Your task to perform on an android device: toggle sleep mode Image 0: 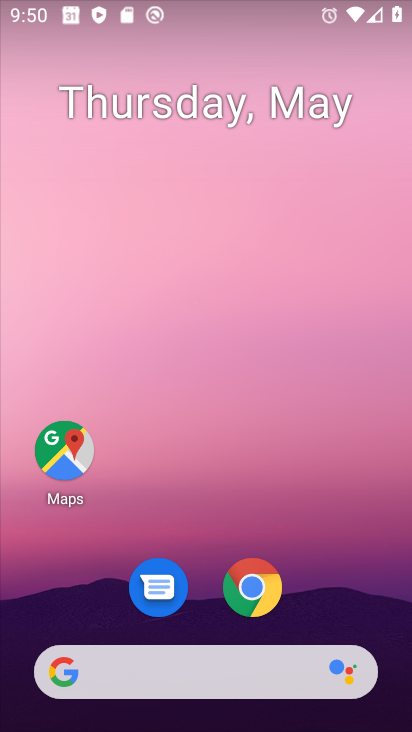
Step 0: drag from (388, 643) to (317, 89)
Your task to perform on an android device: toggle sleep mode Image 1: 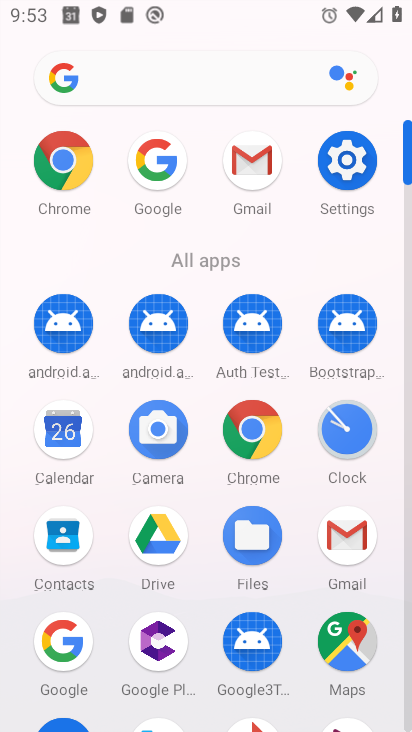
Step 1: click (354, 140)
Your task to perform on an android device: toggle sleep mode Image 2: 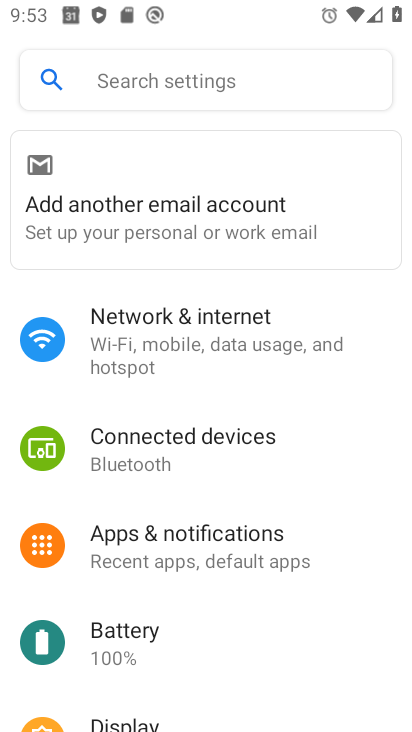
Step 2: task complete